Your task to perform on an android device: Open wifi settings Image 0: 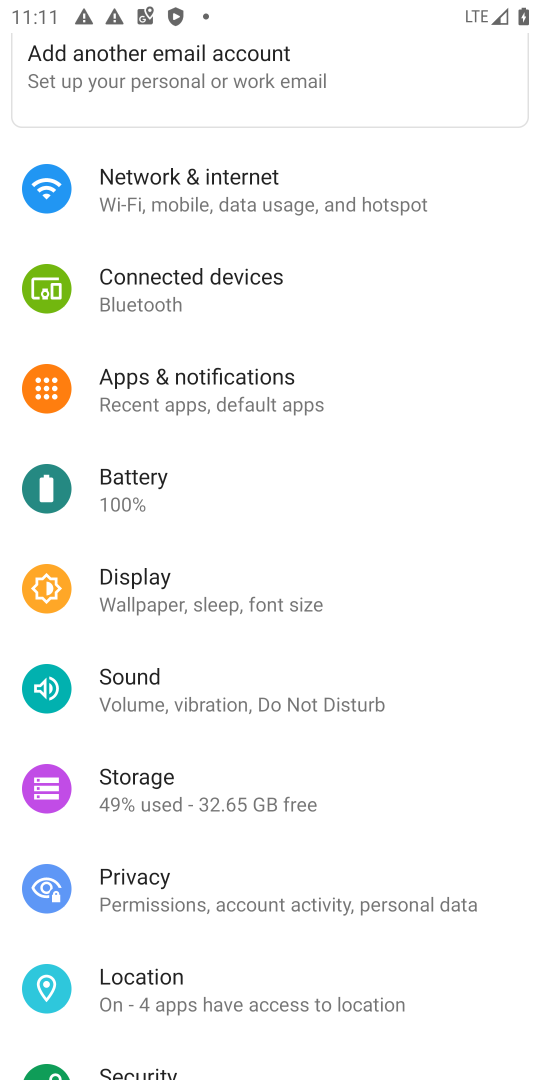
Step 0: click (165, 190)
Your task to perform on an android device: Open wifi settings Image 1: 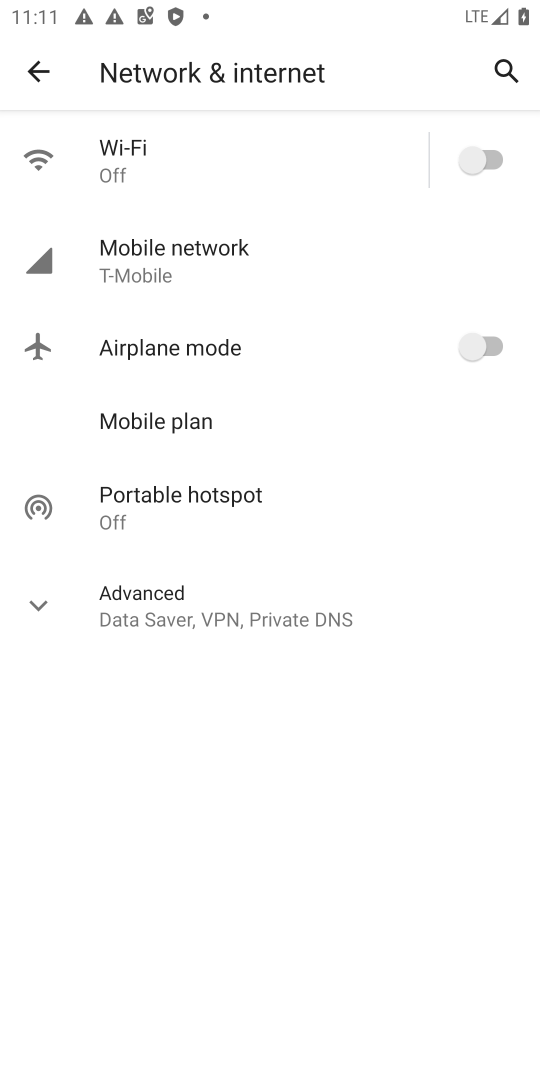
Step 1: click (192, 164)
Your task to perform on an android device: Open wifi settings Image 2: 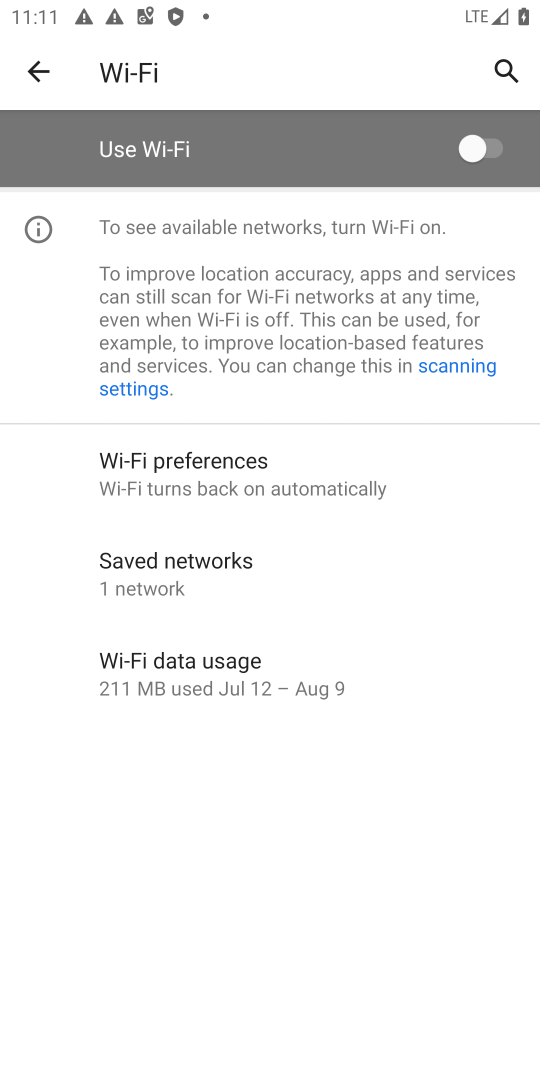
Step 2: click (478, 148)
Your task to perform on an android device: Open wifi settings Image 3: 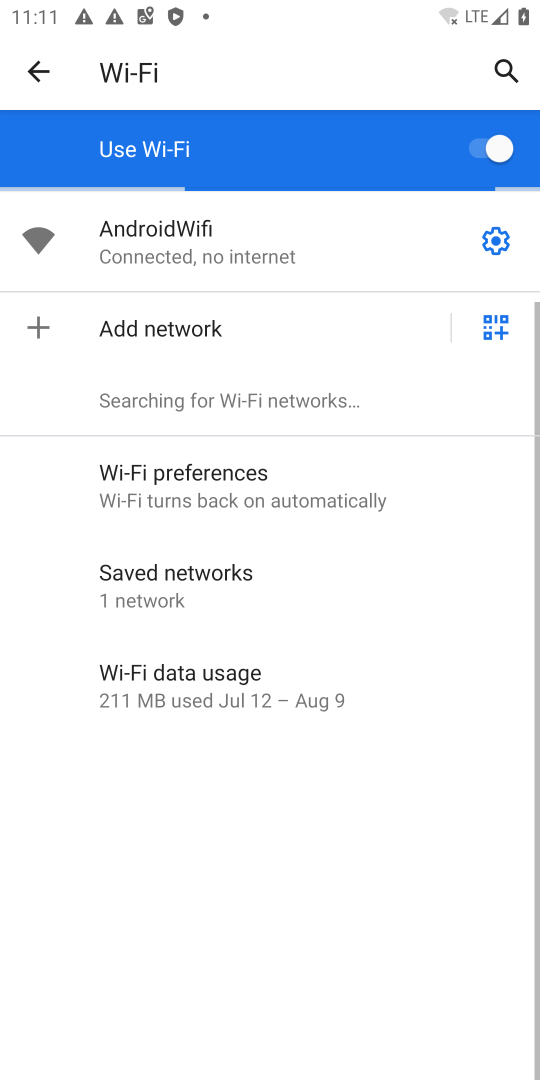
Step 3: click (499, 238)
Your task to perform on an android device: Open wifi settings Image 4: 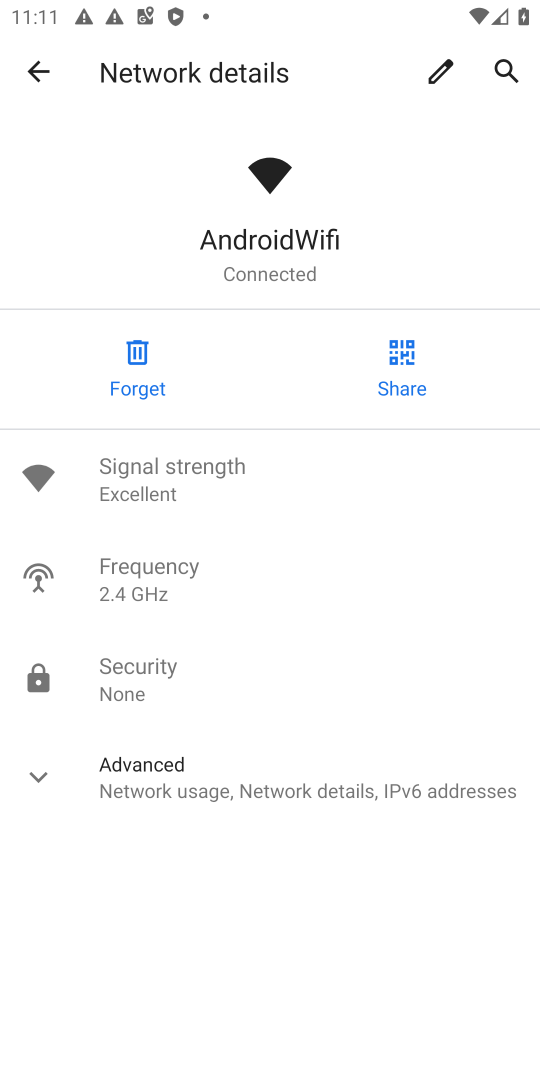
Step 4: task complete